Your task to perform on an android device: Show me the alarms in the clock app Image 0: 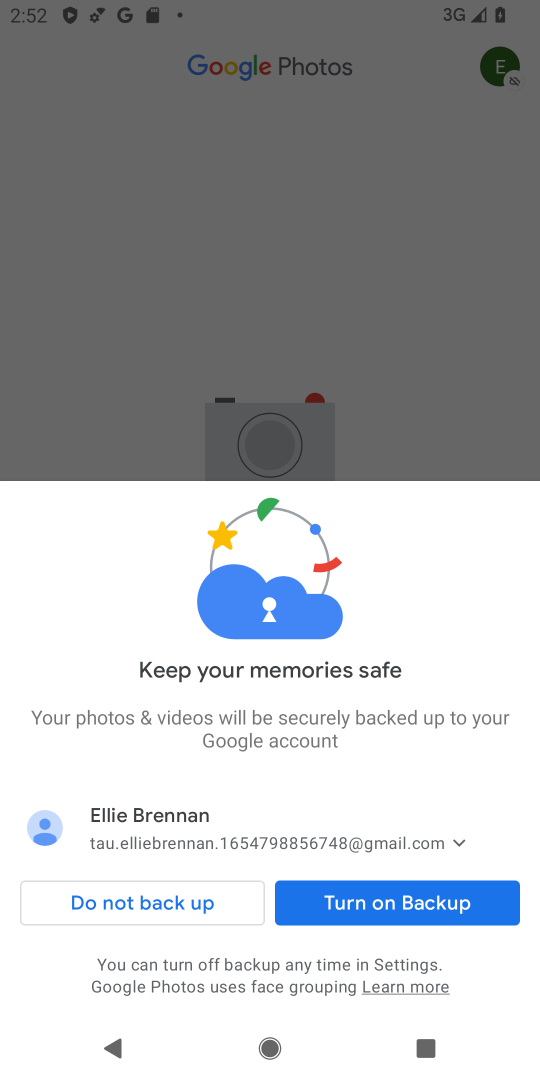
Step 0: press home button
Your task to perform on an android device: Show me the alarms in the clock app Image 1: 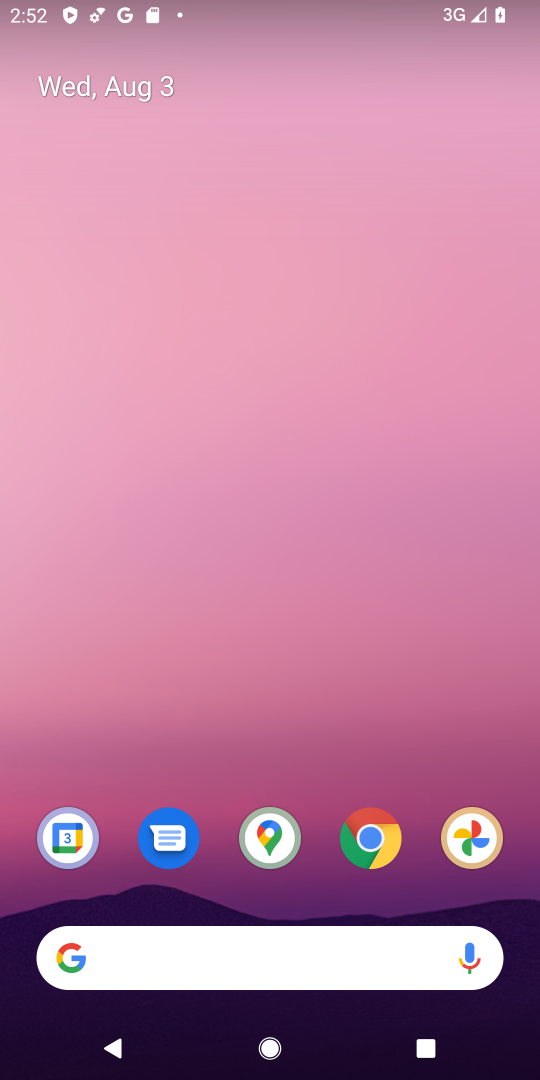
Step 1: drag from (331, 870) to (209, 152)
Your task to perform on an android device: Show me the alarms in the clock app Image 2: 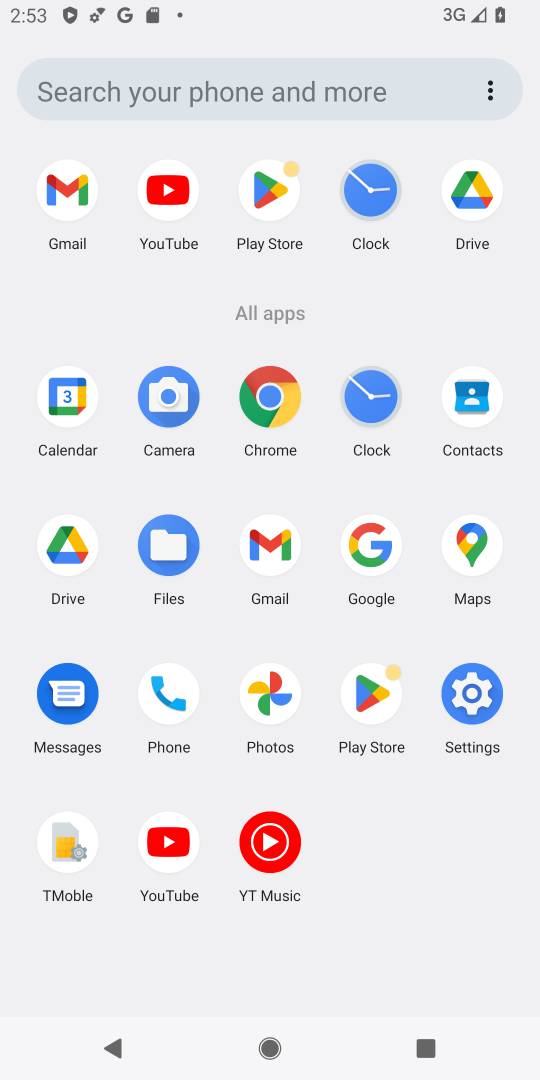
Step 2: click (362, 408)
Your task to perform on an android device: Show me the alarms in the clock app Image 3: 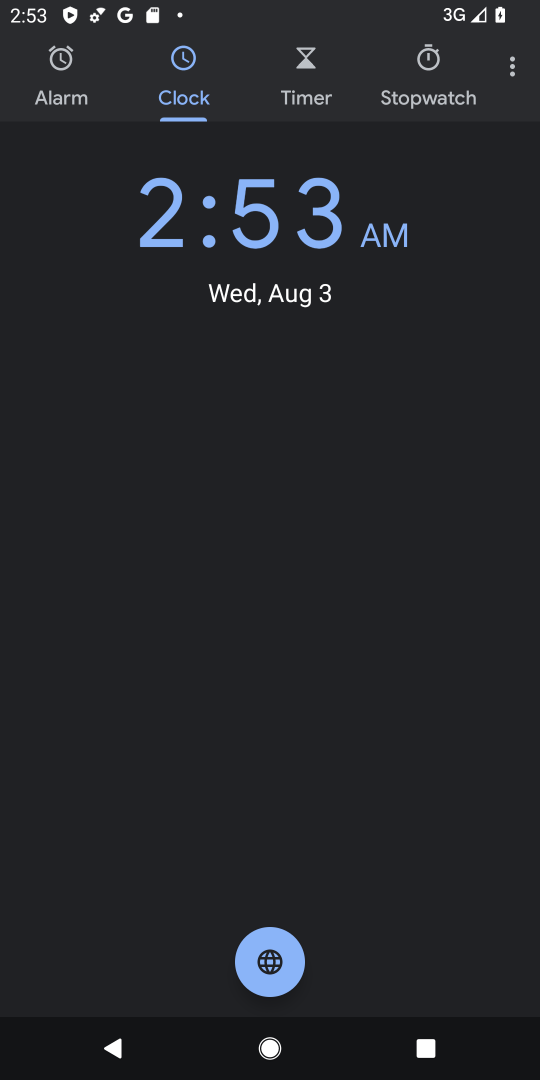
Step 3: click (25, 83)
Your task to perform on an android device: Show me the alarms in the clock app Image 4: 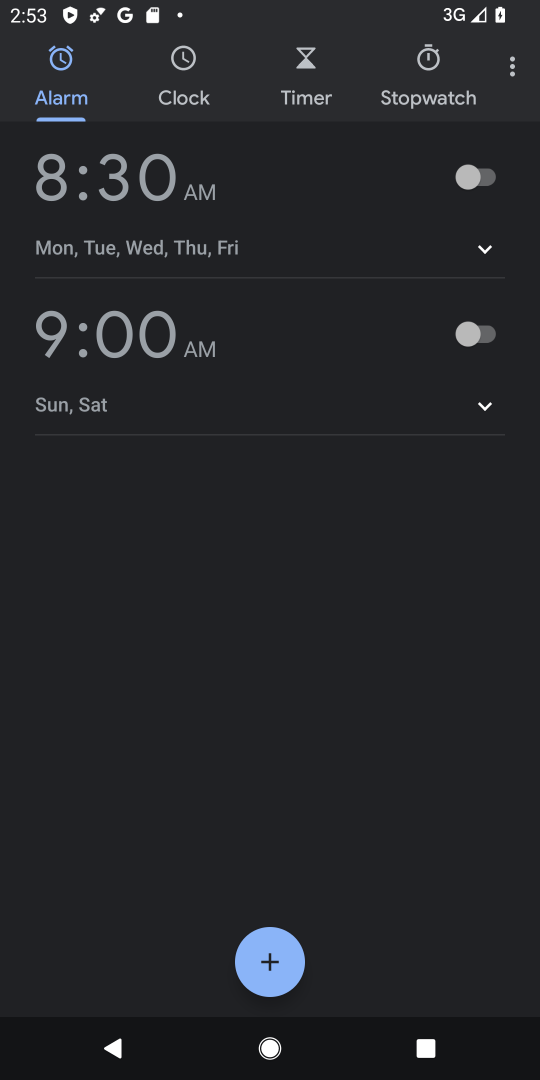
Step 4: task complete